Your task to perform on an android device: Open Chrome and go to settings Image 0: 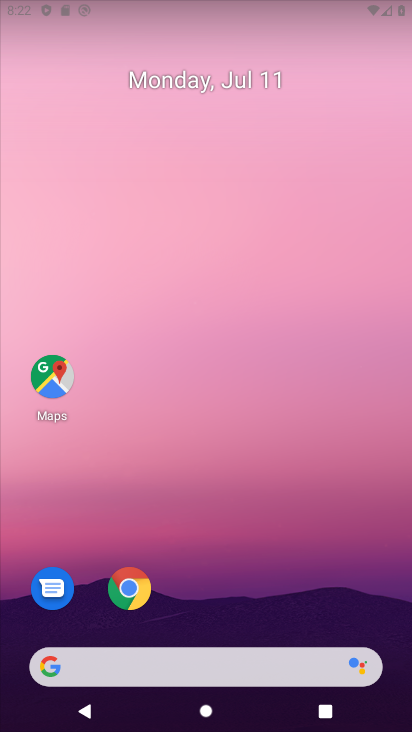
Step 0: click (130, 588)
Your task to perform on an android device: Open Chrome and go to settings Image 1: 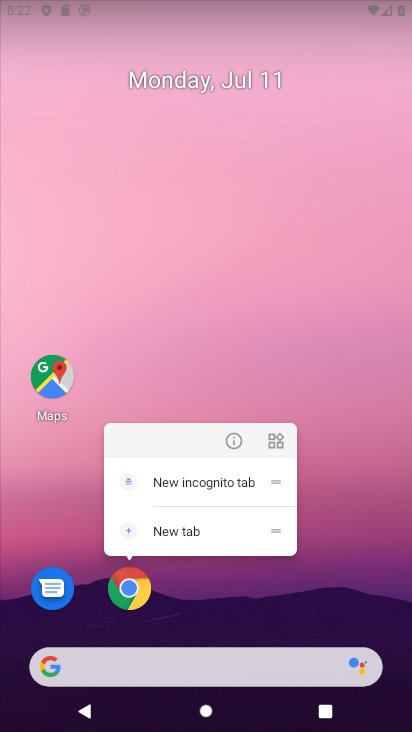
Step 1: click (122, 582)
Your task to perform on an android device: Open Chrome and go to settings Image 2: 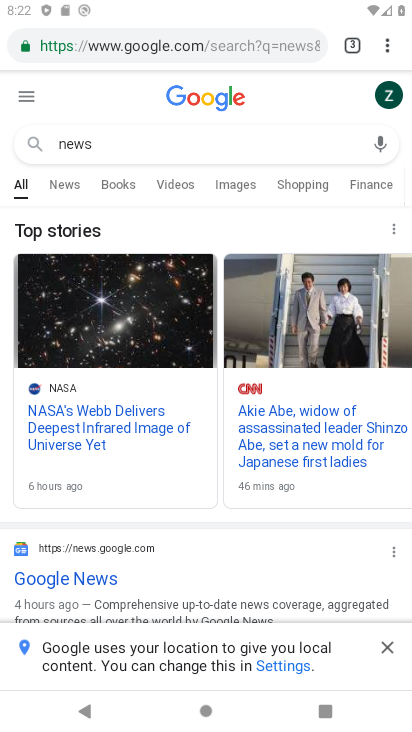
Step 2: click (387, 43)
Your task to perform on an android device: Open Chrome and go to settings Image 3: 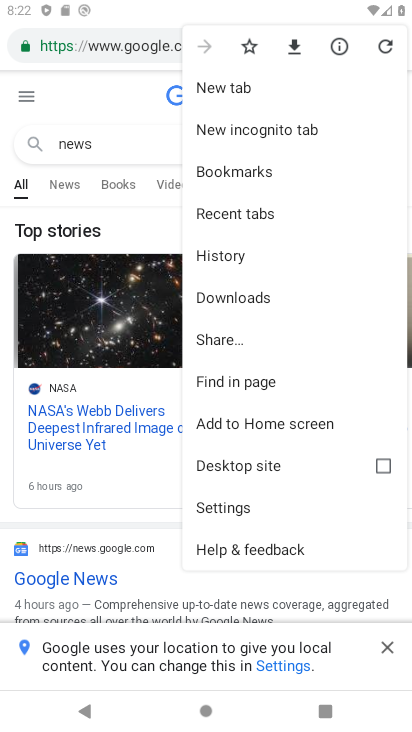
Step 3: click (243, 507)
Your task to perform on an android device: Open Chrome and go to settings Image 4: 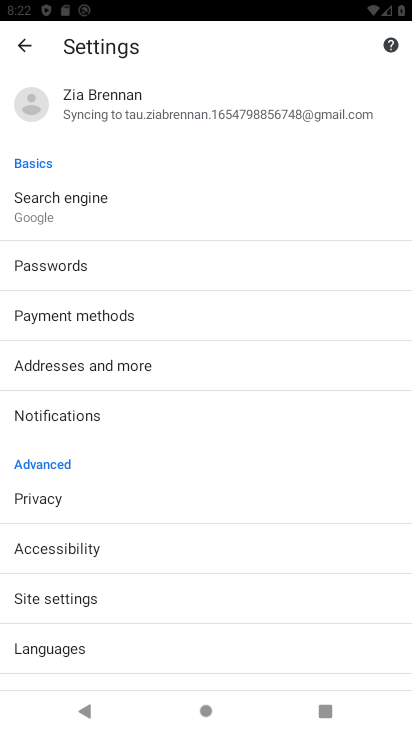
Step 4: task complete